Your task to perform on an android device: Open calendar and show me the third week of next month Image 0: 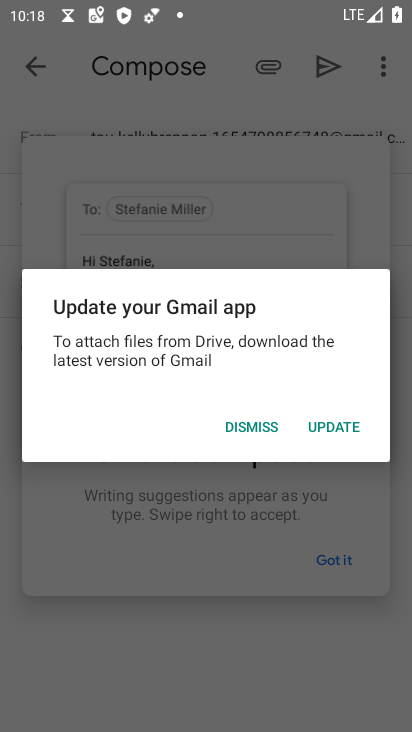
Step 0: press home button
Your task to perform on an android device: Open calendar and show me the third week of next month Image 1: 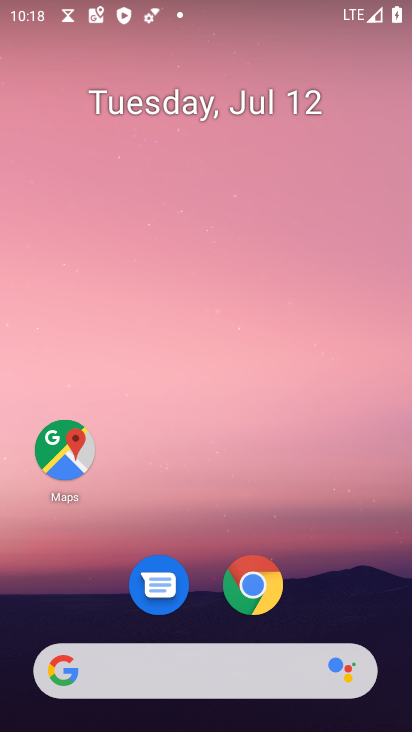
Step 1: drag from (204, 686) to (227, 210)
Your task to perform on an android device: Open calendar and show me the third week of next month Image 2: 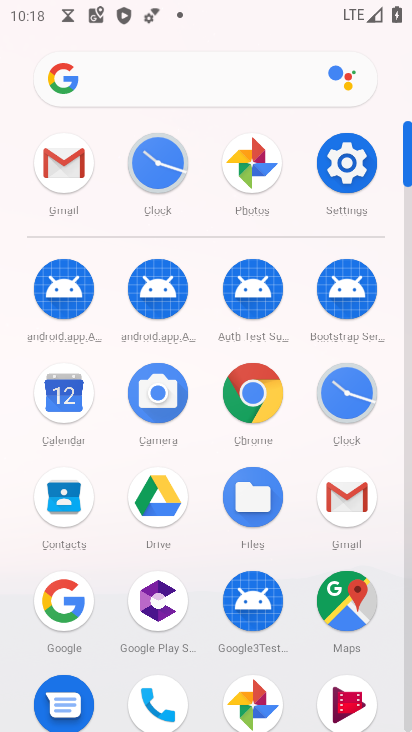
Step 2: click (63, 398)
Your task to perform on an android device: Open calendar and show me the third week of next month Image 3: 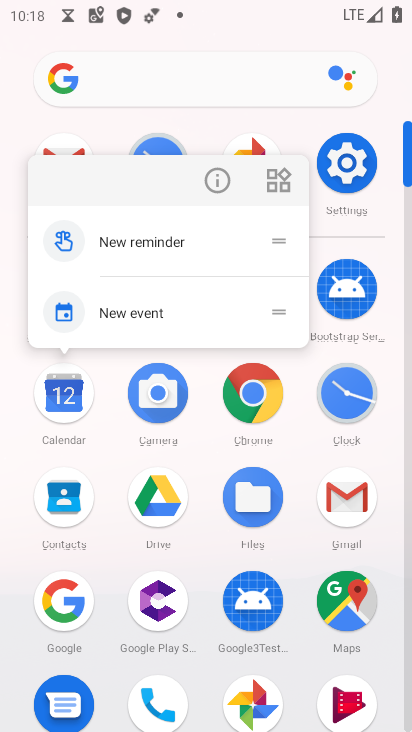
Step 3: click (63, 398)
Your task to perform on an android device: Open calendar and show me the third week of next month Image 4: 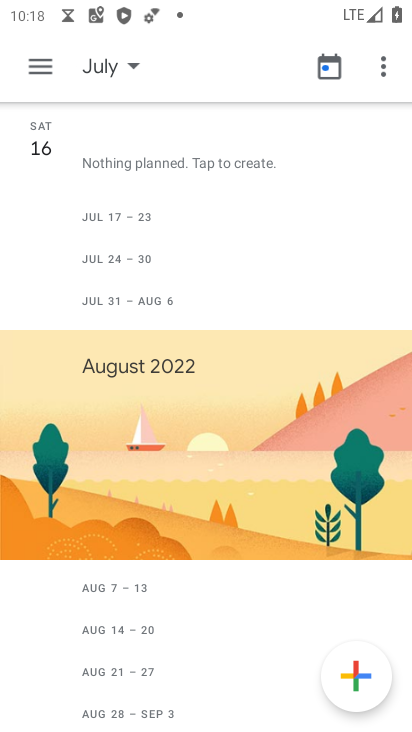
Step 4: click (113, 64)
Your task to perform on an android device: Open calendar and show me the third week of next month Image 5: 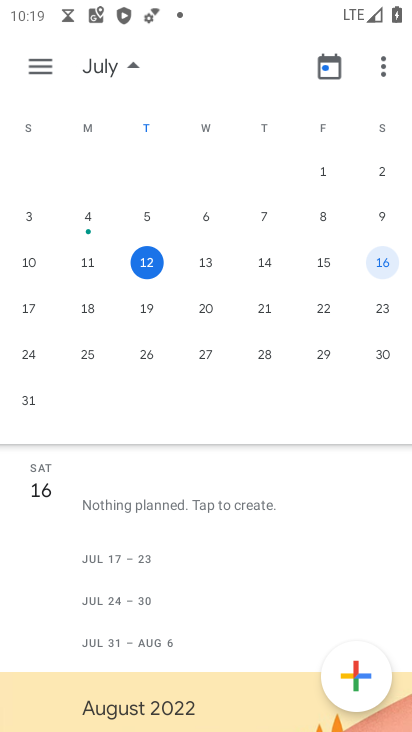
Step 5: drag from (375, 321) to (77, 308)
Your task to perform on an android device: Open calendar and show me the third week of next month Image 6: 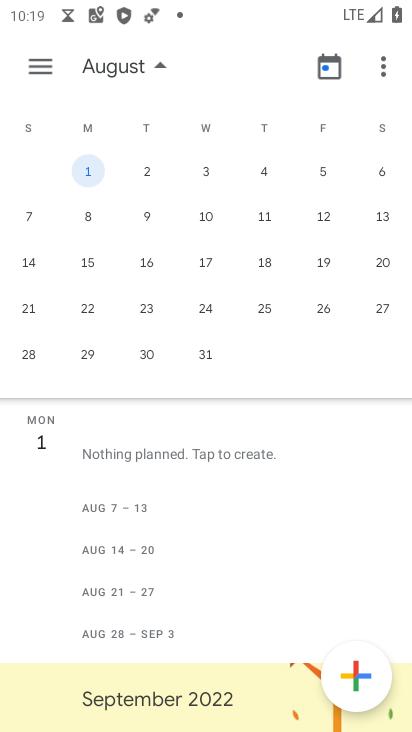
Step 6: click (360, 312)
Your task to perform on an android device: Open calendar and show me the third week of next month Image 7: 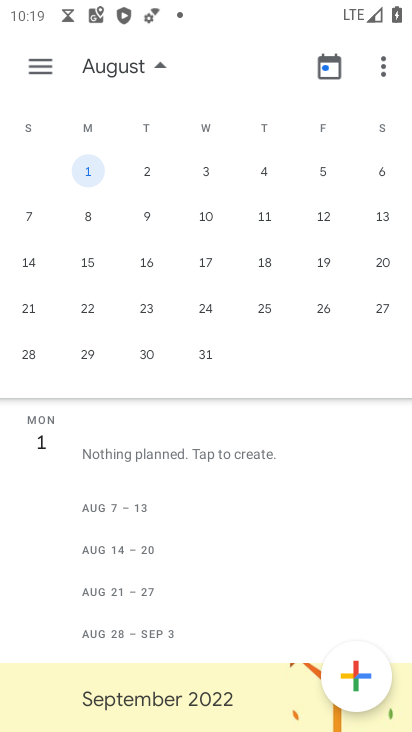
Step 7: click (30, 259)
Your task to perform on an android device: Open calendar and show me the third week of next month Image 8: 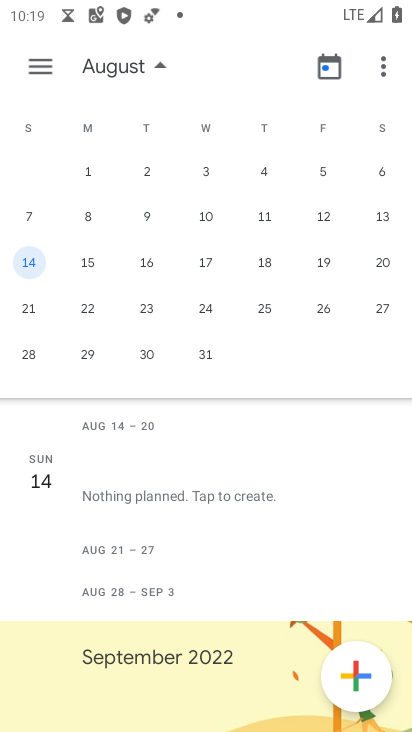
Step 8: click (36, 63)
Your task to perform on an android device: Open calendar and show me the third week of next month Image 9: 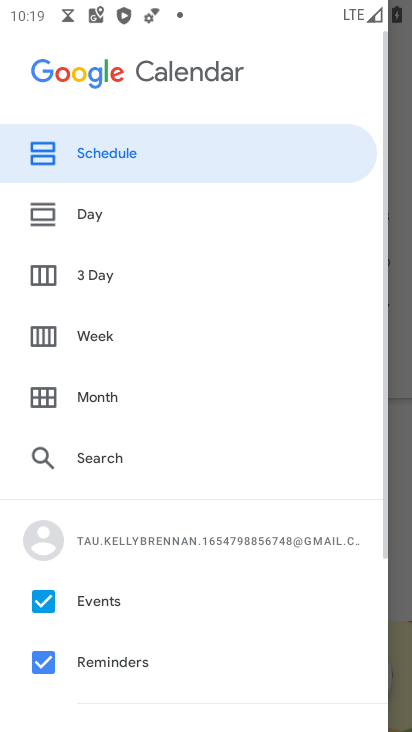
Step 9: click (99, 342)
Your task to perform on an android device: Open calendar and show me the third week of next month Image 10: 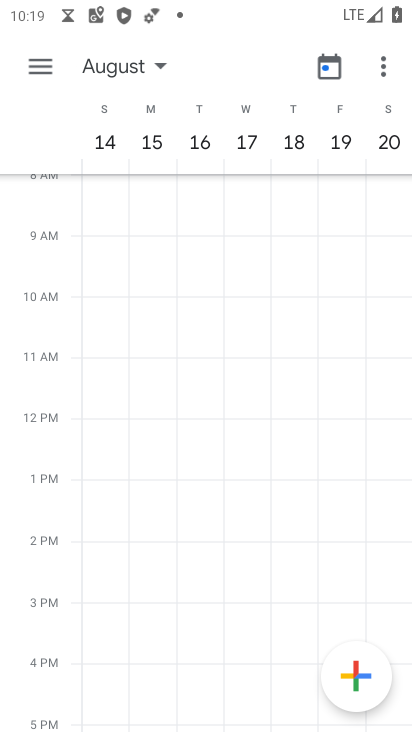
Step 10: task complete